Your task to perform on an android device: find snoozed emails in the gmail app Image 0: 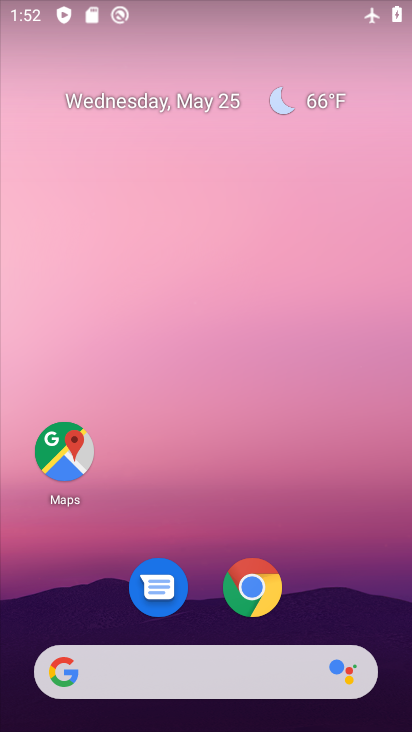
Step 0: drag from (385, 647) to (391, 248)
Your task to perform on an android device: find snoozed emails in the gmail app Image 1: 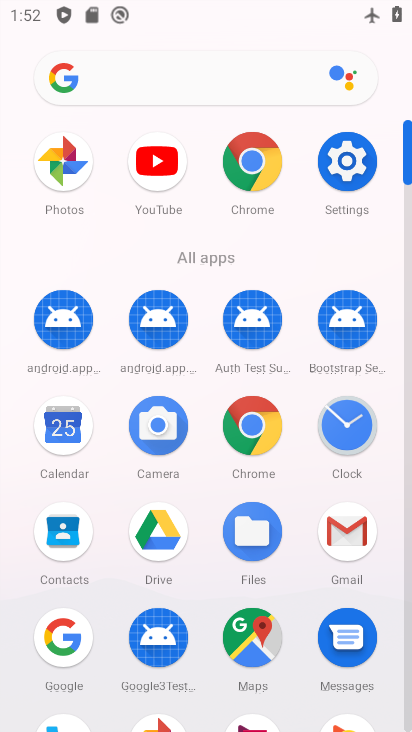
Step 1: click (346, 549)
Your task to perform on an android device: find snoozed emails in the gmail app Image 2: 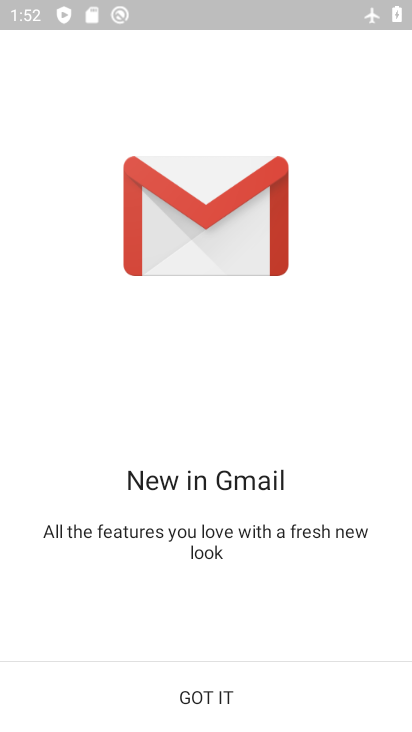
Step 2: click (285, 699)
Your task to perform on an android device: find snoozed emails in the gmail app Image 3: 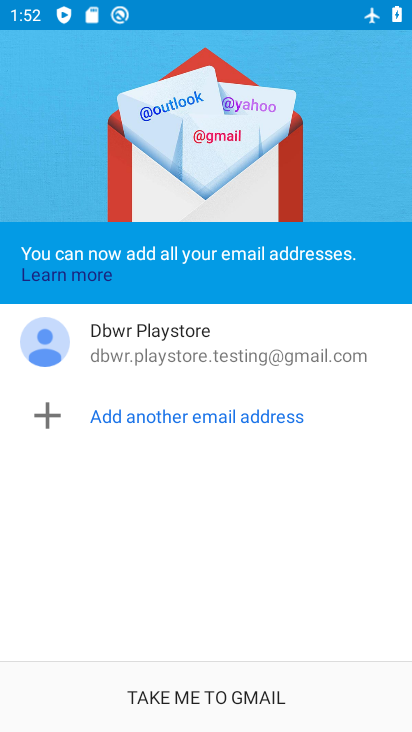
Step 3: click (295, 694)
Your task to perform on an android device: find snoozed emails in the gmail app Image 4: 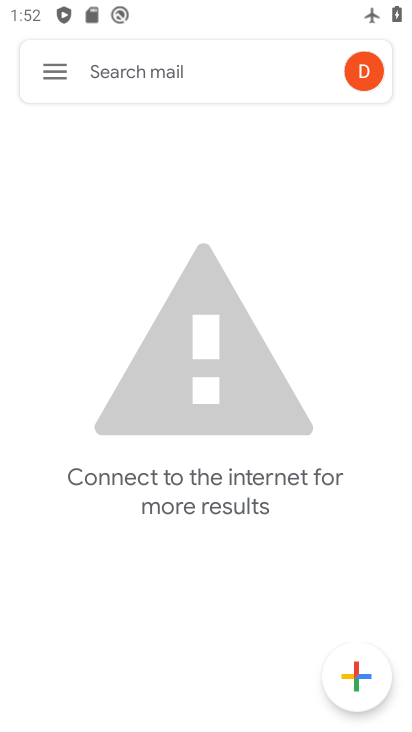
Step 4: click (54, 74)
Your task to perform on an android device: find snoozed emails in the gmail app Image 5: 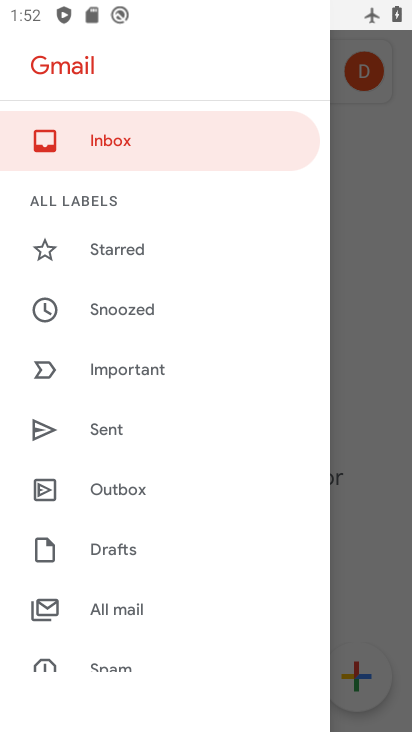
Step 5: click (165, 317)
Your task to perform on an android device: find snoozed emails in the gmail app Image 6: 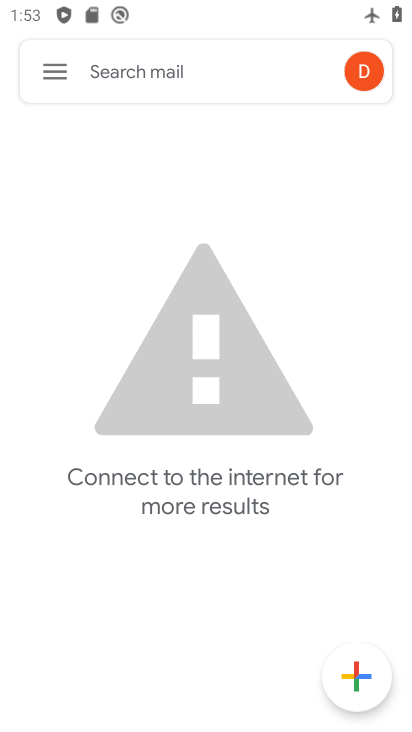
Step 6: task complete